Your task to perform on an android device: Open Google Maps and go to "Timeline" Image 0: 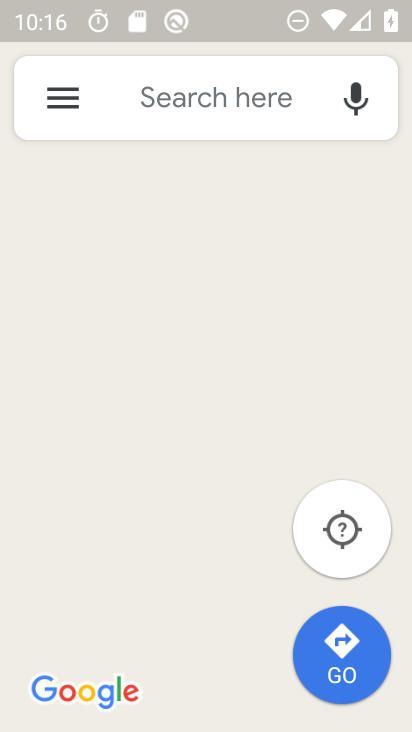
Step 0: press home button
Your task to perform on an android device: Open Google Maps and go to "Timeline" Image 1: 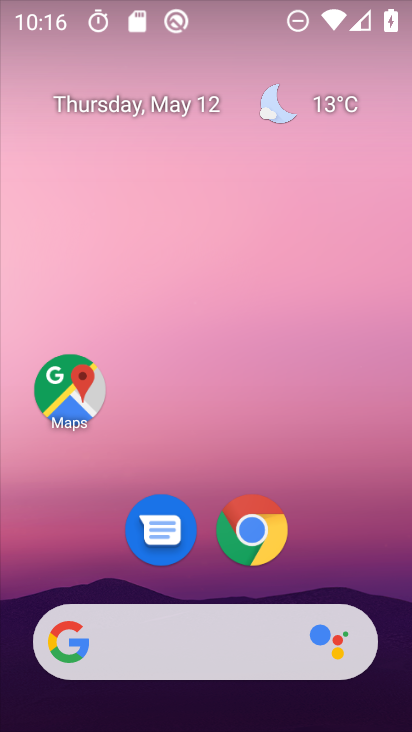
Step 1: click (68, 407)
Your task to perform on an android device: Open Google Maps and go to "Timeline" Image 2: 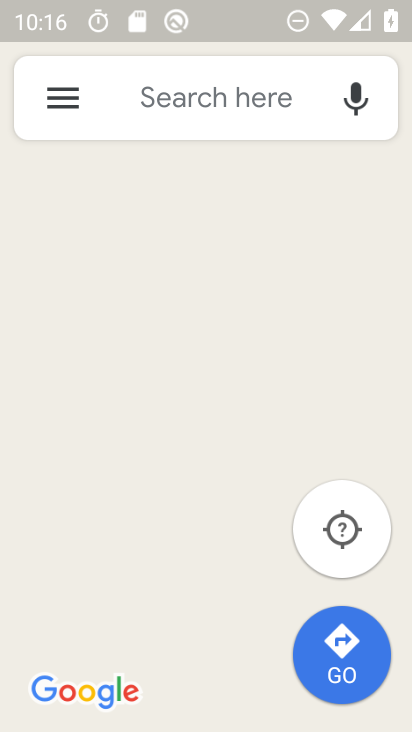
Step 2: click (116, 90)
Your task to perform on an android device: Open Google Maps and go to "Timeline" Image 3: 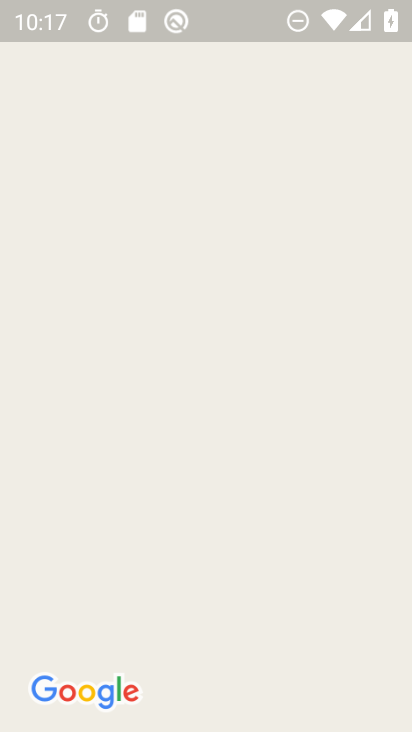
Step 3: press back button
Your task to perform on an android device: Open Google Maps and go to "Timeline" Image 4: 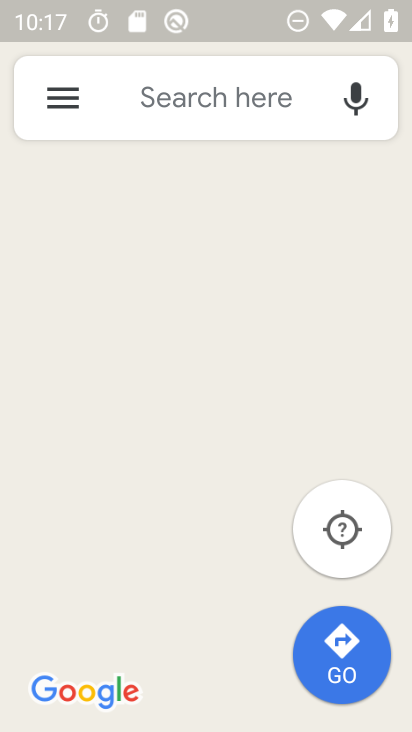
Step 4: click (57, 93)
Your task to perform on an android device: Open Google Maps and go to "Timeline" Image 5: 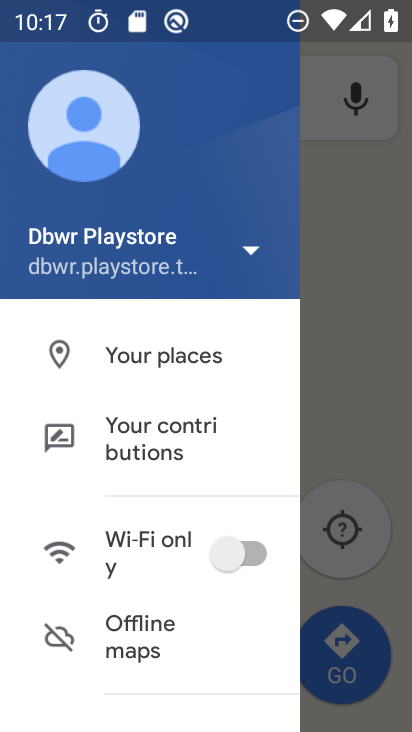
Step 5: drag from (189, 667) to (272, 179)
Your task to perform on an android device: Open Google Maps and go to "Timeline" Image 6: 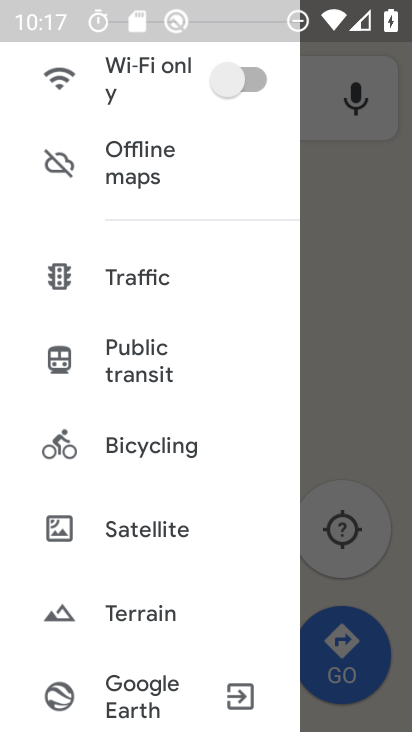
Step 6: drag from (168, 665) to (264, 56)
Your task to perform on an android device: Open Google Maps and go to "Timeline" Image 7: 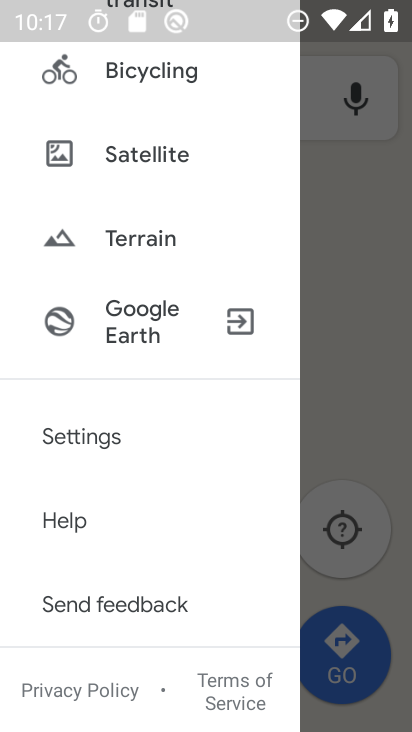
Step 7: click (86, 434)
Your task to perform on an android device: Open Google Maps and go to "Timeline" Image 8: 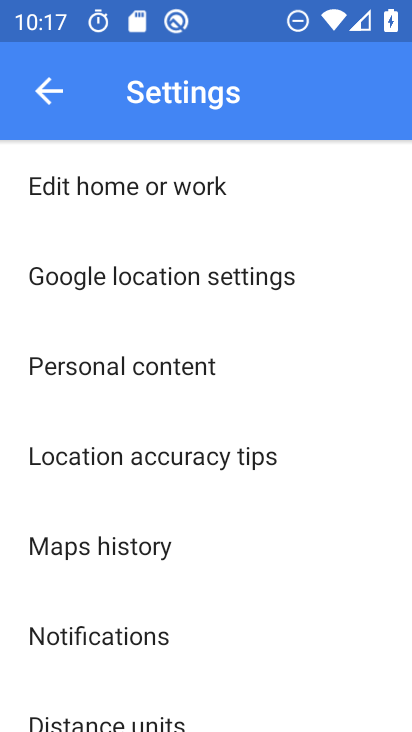
Step 8: press back button
Your task to perform on an android device: Open Google Maps and go to "Timeline" Image 9: 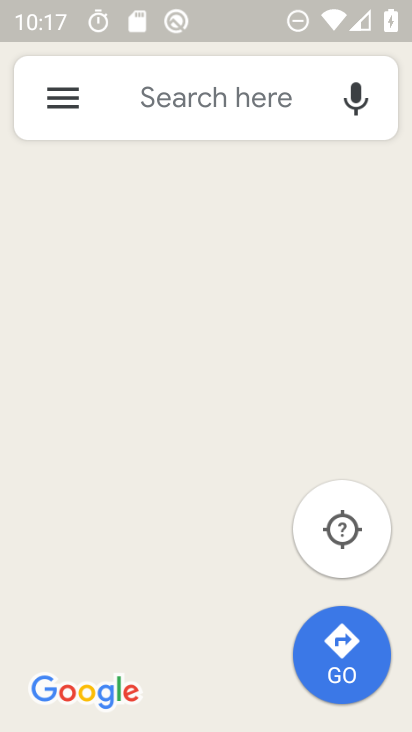
Step 9: click (51, 91)
Your task to perform on an android device: Open Google Maps and go to "Timeline" Image 10: 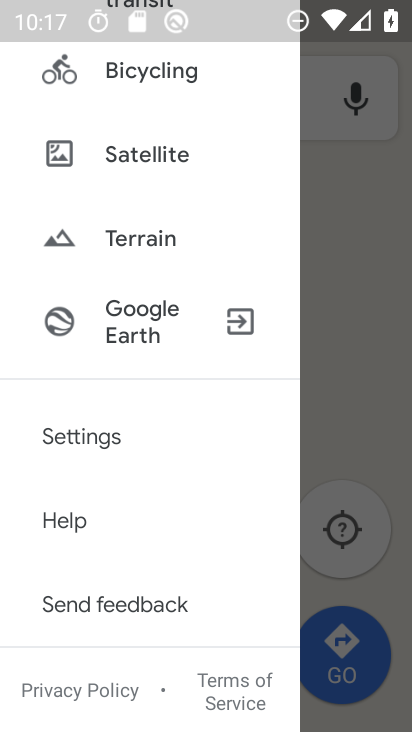
Step 10: drag from (162, 519) to (195, 277)
Your task to perform on an android device: Open Google Maps and go to "Timeline" Image 11: 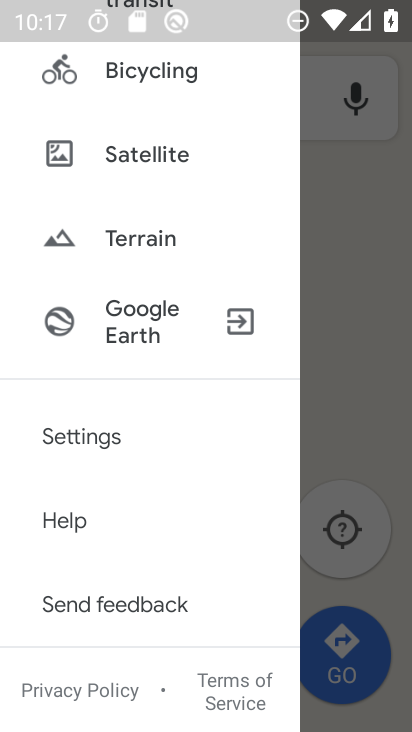
Step 11: drag from (211, 138) to (114, 498)
Your task to perform on an android device: Open Google Maps and go to "Timeline" Image 12: 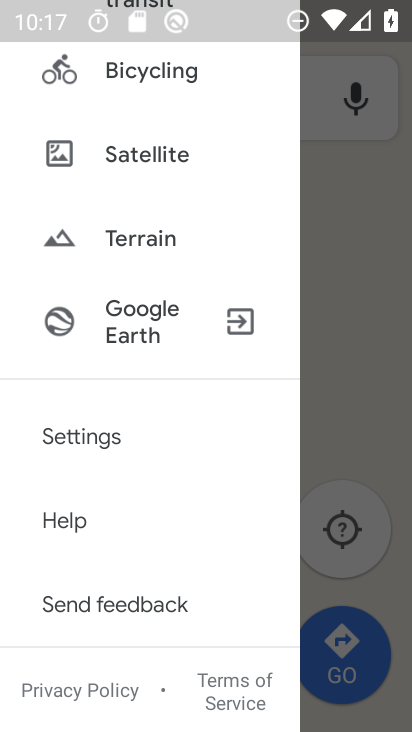
Step 12: drag from (151, 175) to (120, 480)
Your task to perform on an android device: Open Google Maps and go to "Timeline" Image 13: 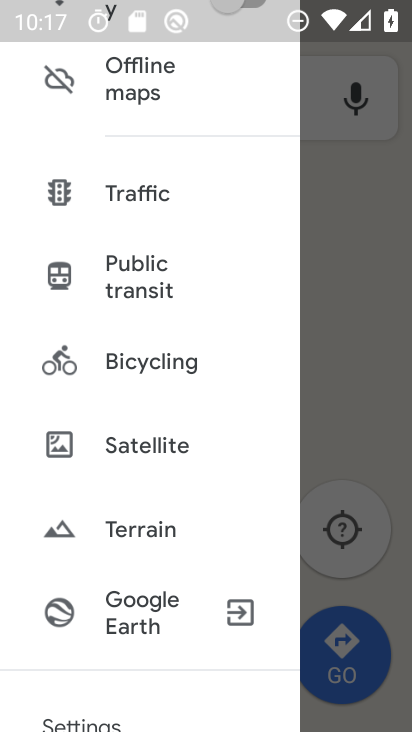
Step 13: drag from (173, 172) to (120, 551)
Your task to perform on an android device: Open Google Maps and go to "Timeline" Image 14: 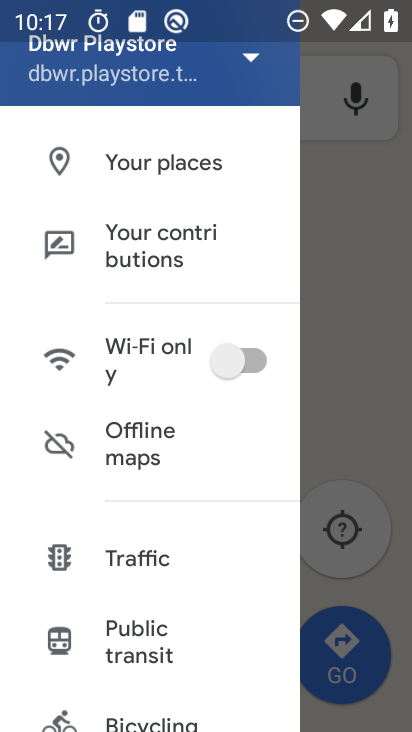
Step 14: click (156, 162)
Your task to perform on an android device: Open Google Maps and go to "Timeline" Image 15: 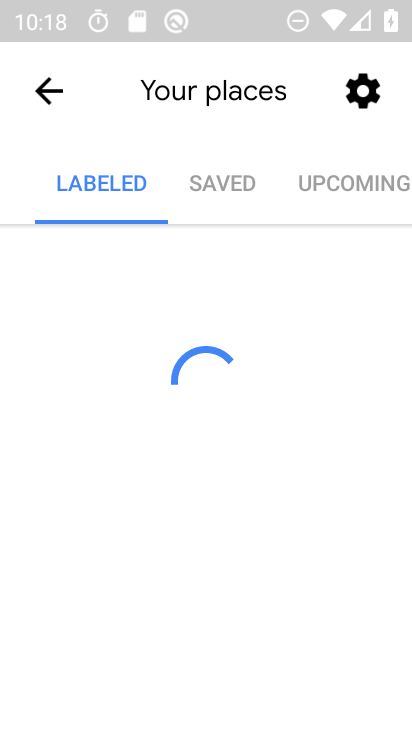
Step 15: task complete